Your task to perform on an android device: Go to notification settings Image 0: 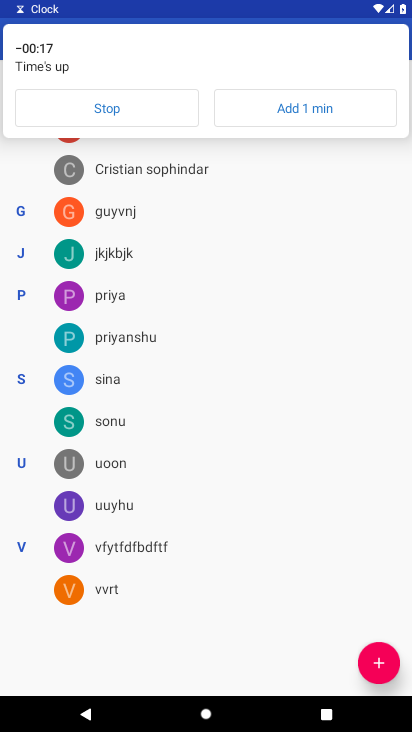
Step 0: press home button
Your task to perform on an android device: Go to notification settings Image 1: 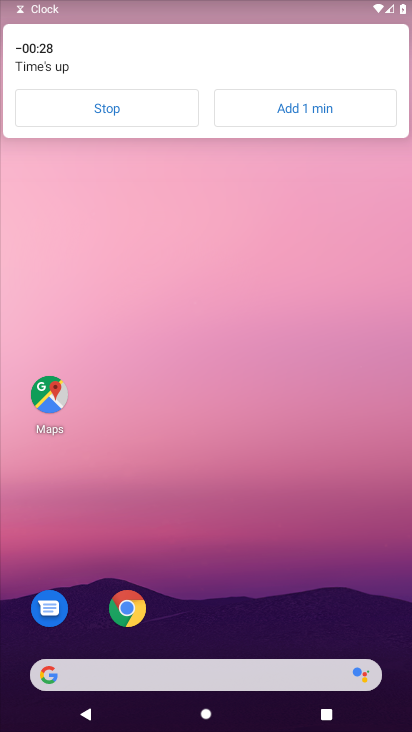
Step 1: drag from (262, 552) to (281, 59)
Your task to perform on an android device: Go to notification settings Image 2: 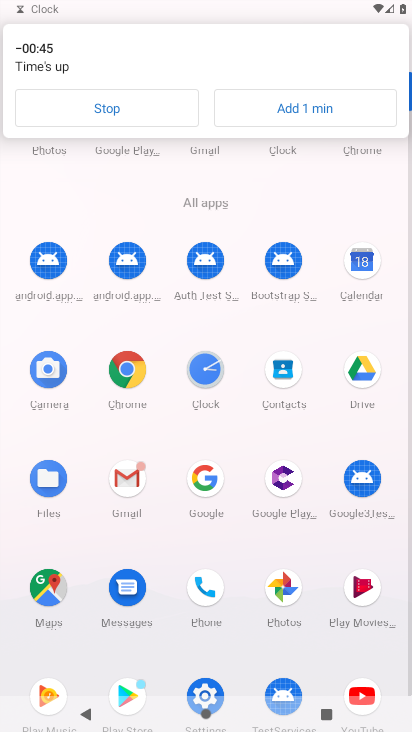
Step 2: click (205, 687)
Your task to perform on an android device: Go to notification settings Image 3: 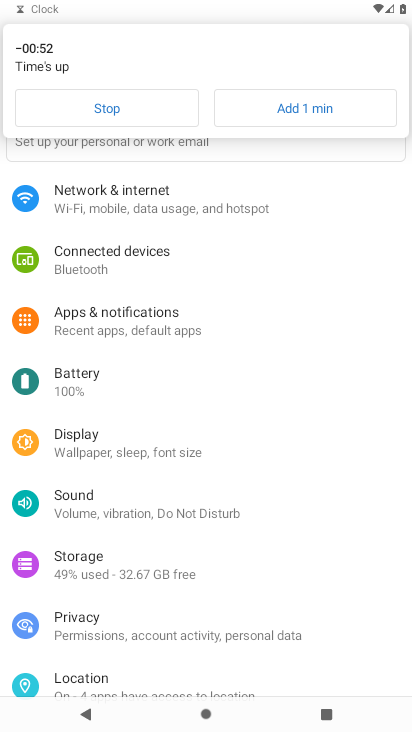
Step 3: click (158, 320)
Your task to perform on an android device: Go to notification settings Image 4: 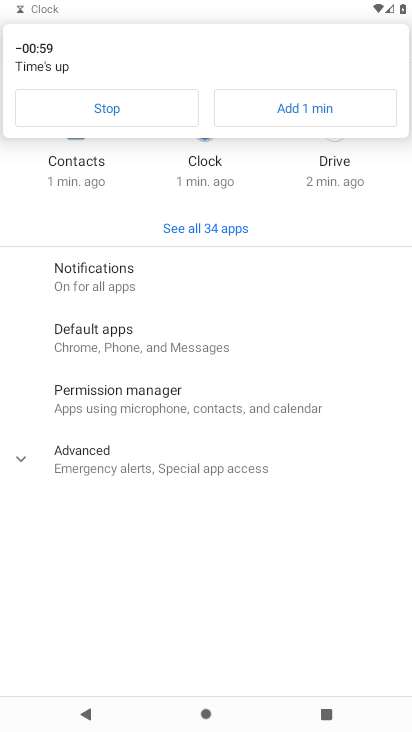
Step 4: click (141, 276)
Your task to perform on an android device: Go to notification settings Image 5: 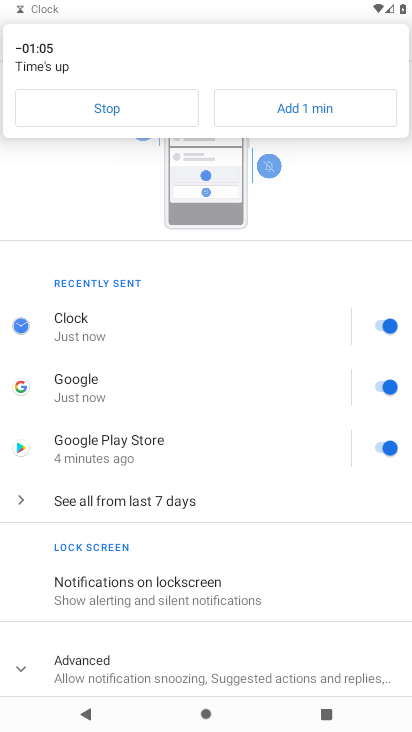
Step 5: task complete